Your task to perform on an android device: Open display settings Image 0: 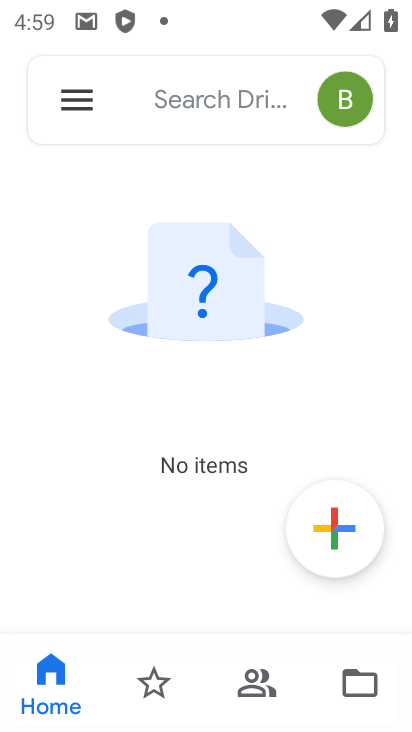
Step 0: press home button
Your task to perform on an android device: Open display settings Image 1: 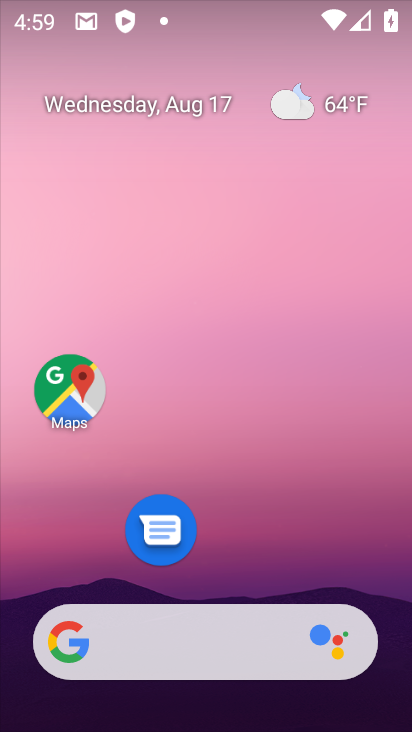
Step 1: drag from (206, 569) to (206, 86)
Your task to perform on an android device: Open display settings Image 2: 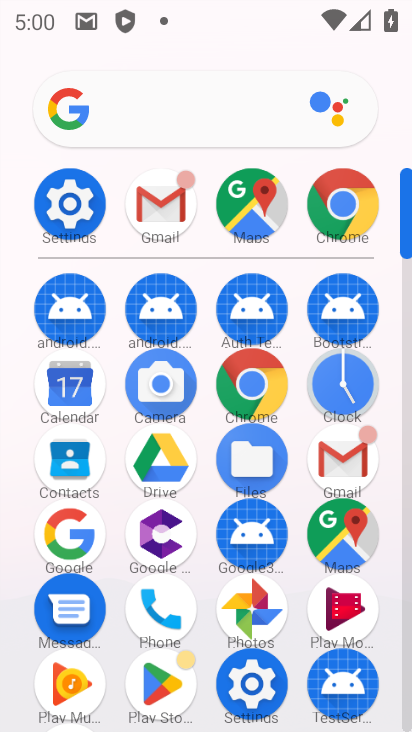
Step 2: click (68, 208)
Your task to perform on an android device: Open display settings Image 3: 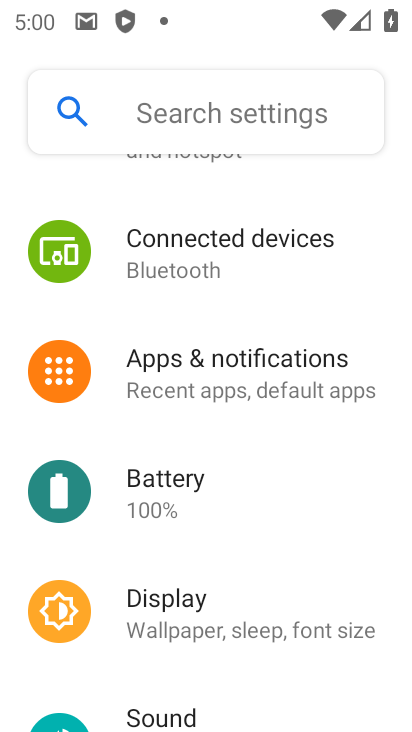
Step 3: drag from (192, 684) to (194, 393)
Your task to perform on an android device: Open display settings Image 4: 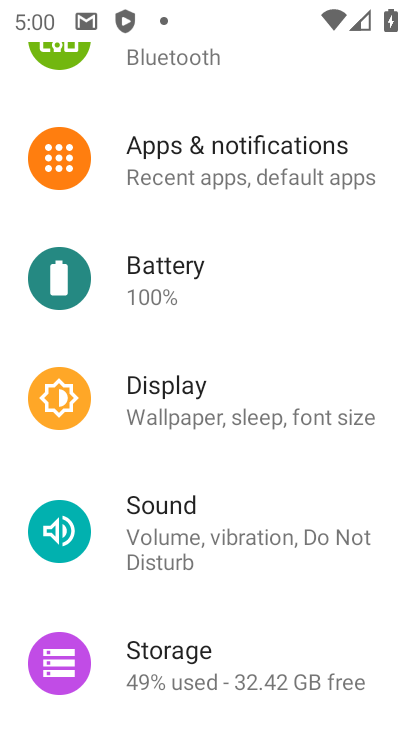
Step 4: drag from (213, 589) to (213, 210)
Your task to perform on an android device: Open display settings Image 5: 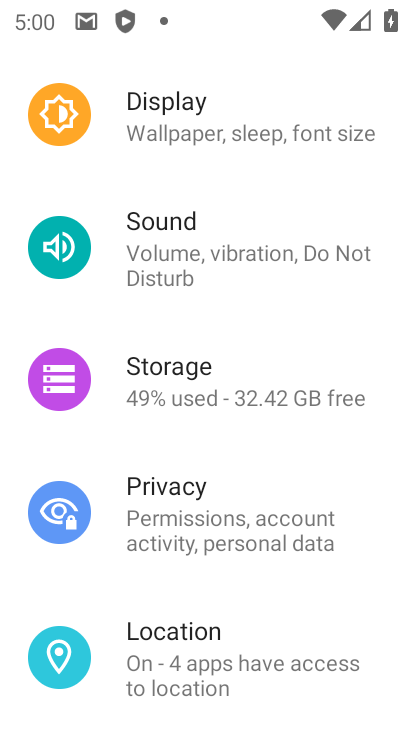
Step 5: click (183, 136)
Your task to perform on an android device: Open display settings Image 6: 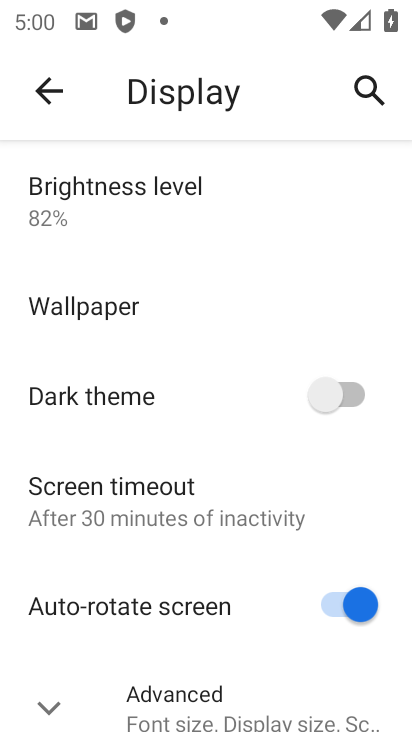
Step 6: task complete